Your task to perform on an android device: Is it going to rain today? Image 0: 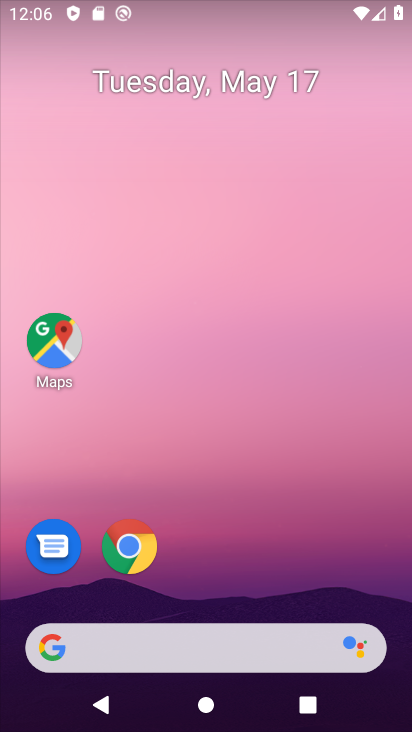
Step 0: drag from (199, 586) to (230, 11)
Your task to perform on an android device: Is it going to rain today? Image 1: 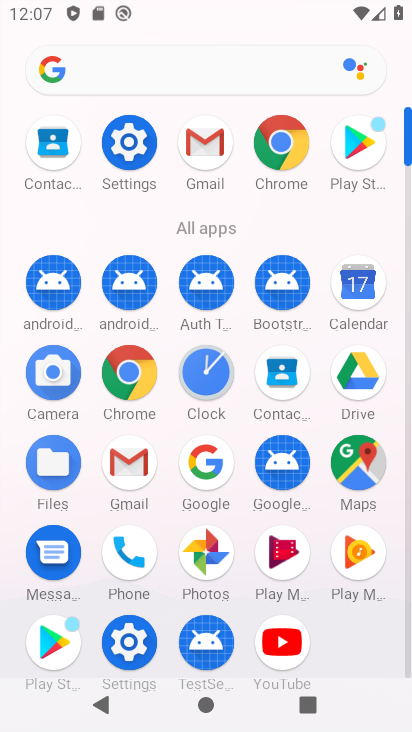
Step 1: press back button
Your task to perform on an android device: Is it going to rain today? Image 2: 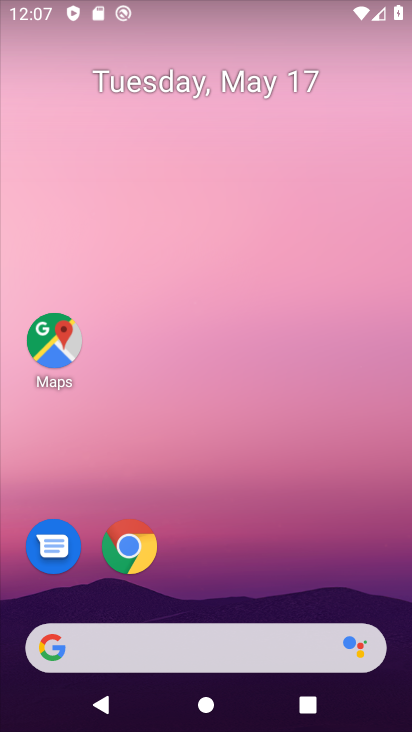
Step 2: drag from (11, 213) to (399, 59)
Your task to perform on an android device: Is it going to rain today? Image 3: 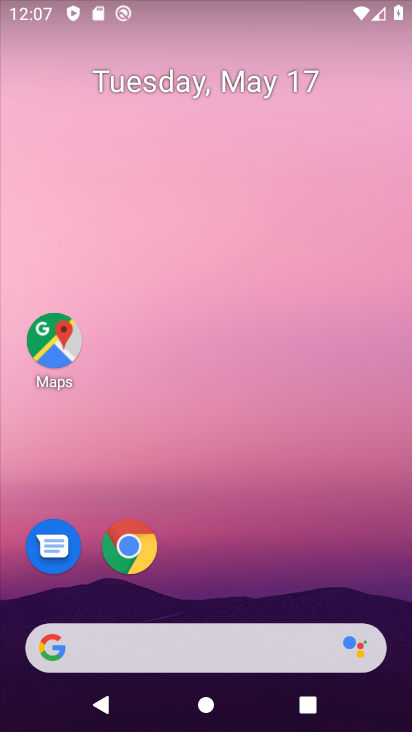
Step 3: drag from (8, 211) to (404, 229)
Your task to perform on an android device: Is it going to rain today? Image 4: 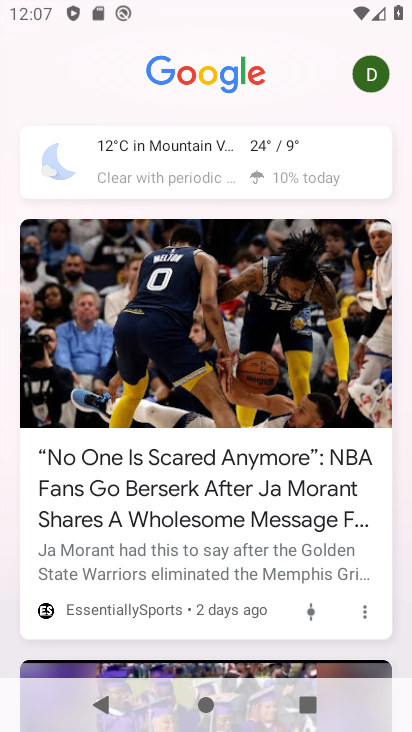
Step 4: click (260, 145)
Your task to perform on an android device: Is it going to rain today? Image 5: 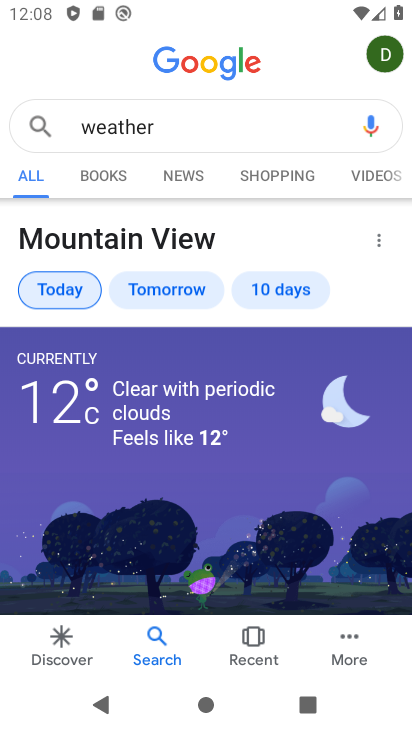
Step 5: task complete